Your task to perform on an android device: open app "Google Play Music" Image 0: 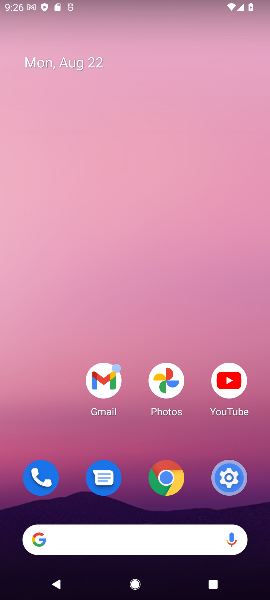
Step 0: drag from (131, 508) to (109, 60)
Your task to perform on an android device: open app "Google Play Music" Image 1: 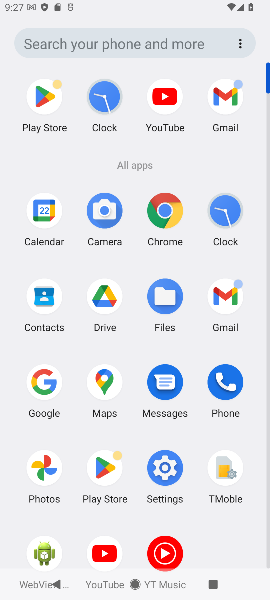
Step 1: click (58, 103)
Your task to perform on an android device: open app "Google Play Music" Image 2: 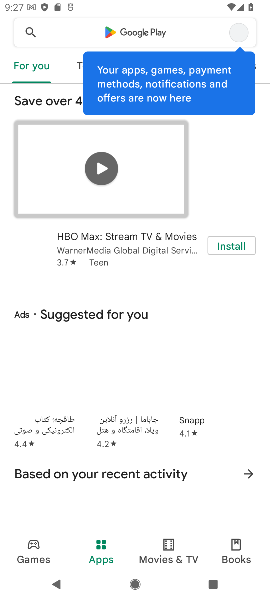
Step 2: click (192, 39)
Your task to perform on an android device: open app "Google Play Music" Image 3: 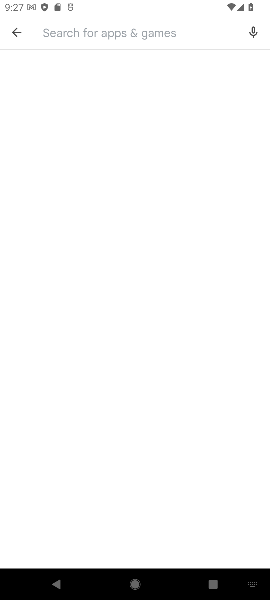
Step 3: type "google play"
Your task to perform on an android device: open app "Google Play Music" Image 4: 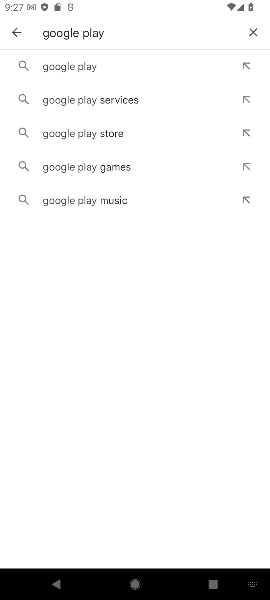
Step 4: click (124, 72)
Your task to perform on an android device: open app "Google Play Music" Image 5: 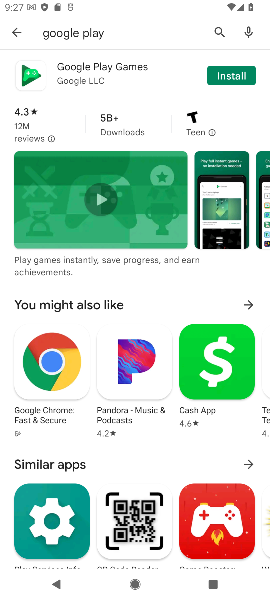
Step 5: click (225, 68)
Your task to perform on an android device: open app "Google Play Music" Image 6: 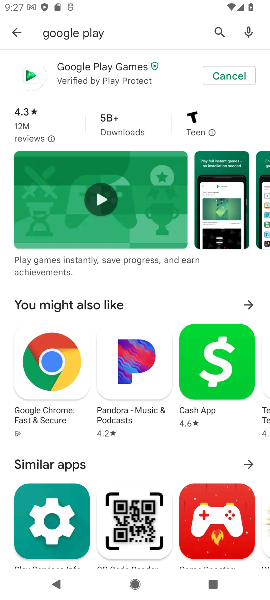
Step 6: task complete